Your task to perform on an android device: Open settings Image 0: 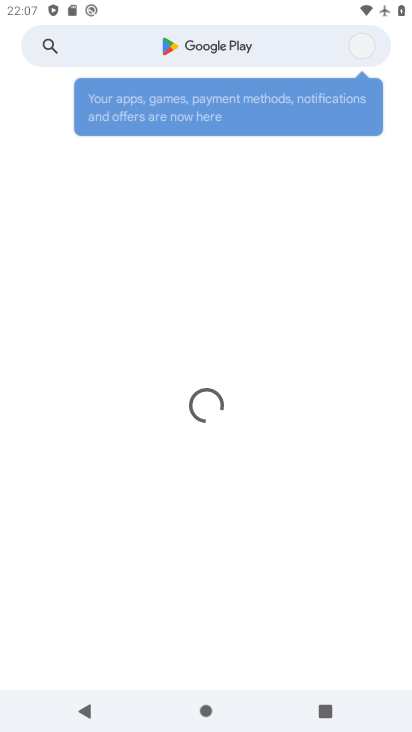
Step 0: press home button
Your task to perform on an android device: Open settings Image 1: 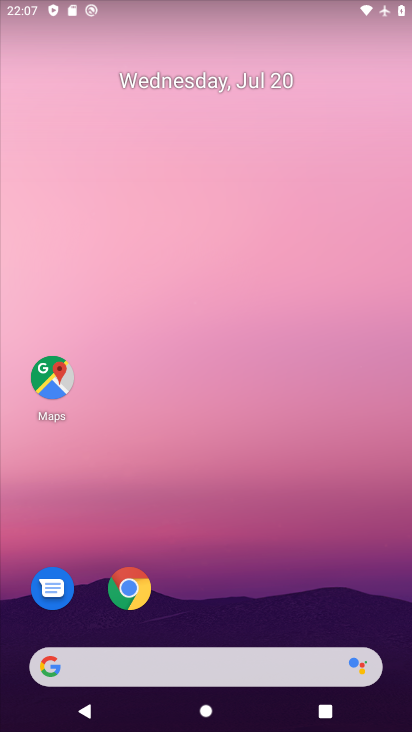
Step 1: drag from (391, 620) to (339, 94)
Your task to perform on an android device: Open settings Image 2: 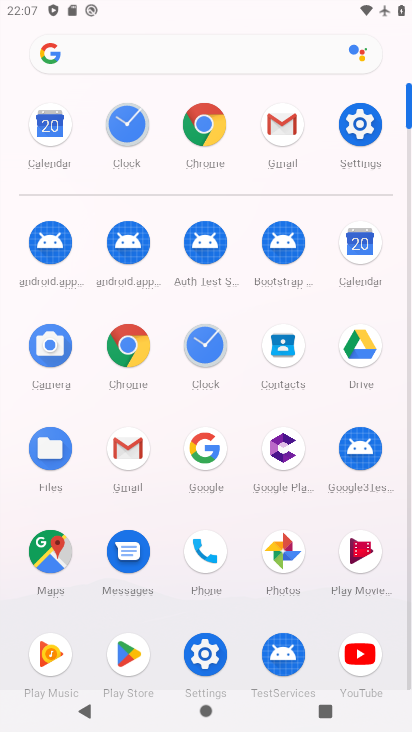
Step 2: click (205, 655)
Your task to perform on an android device: Open settings Image 3: 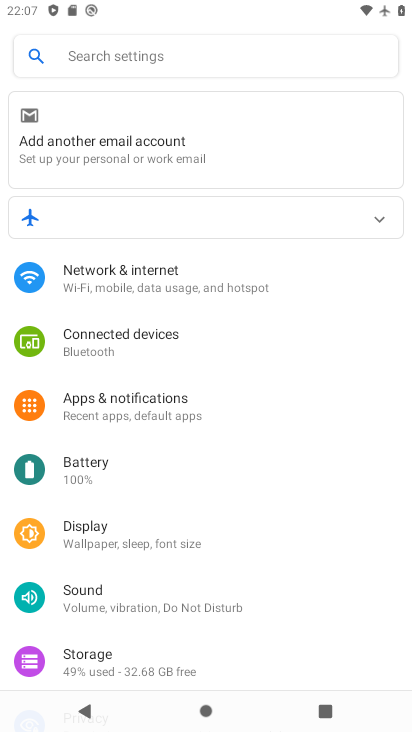
Step 3: task complete